Your task to perform on an android device: Open the stopwatch Image 0: 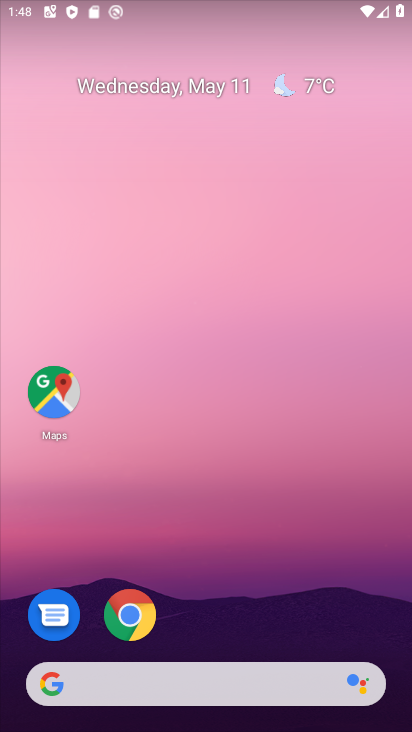
Step 0: drag from (310, 440) to (340, 77)
Your task to perform on an android device: Open the stopwatch Image 1: 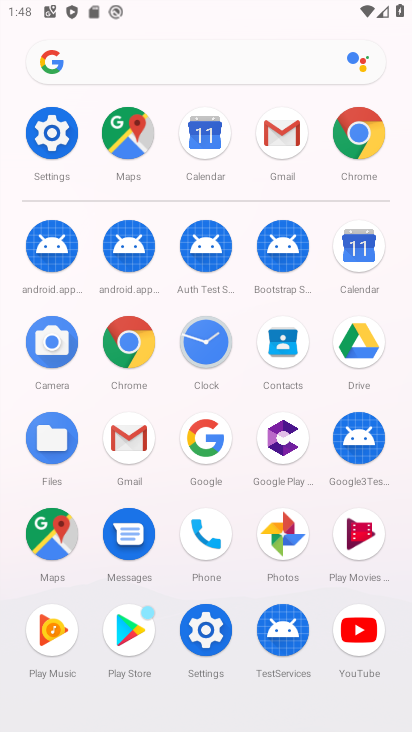
Step 1: click (204, 348)
Your task to perform on an android device: Open the stopwatch Image 2: 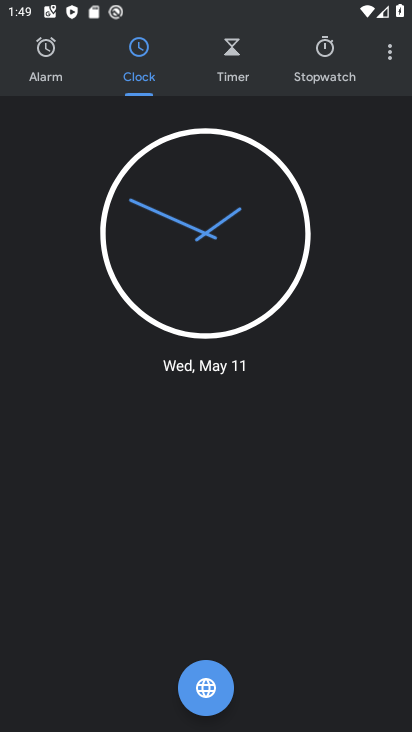
Step 2: click (337, 72)
Your task to perform on an android device: Open the stopwatch Image 3: 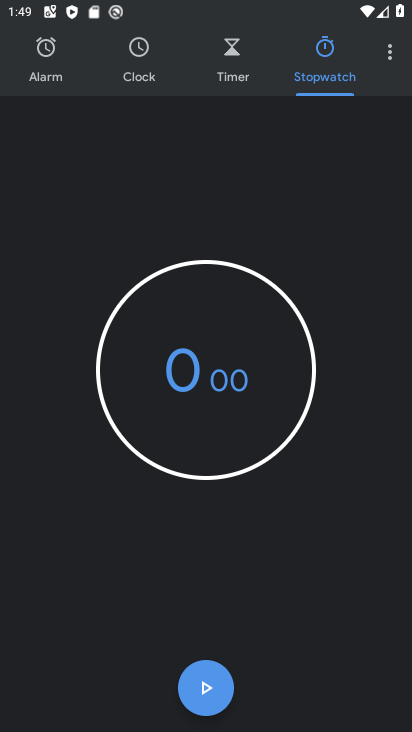
Step 3: task complete